Your task to perform on an android device: manage bookmarks in the chrome app Image 0: 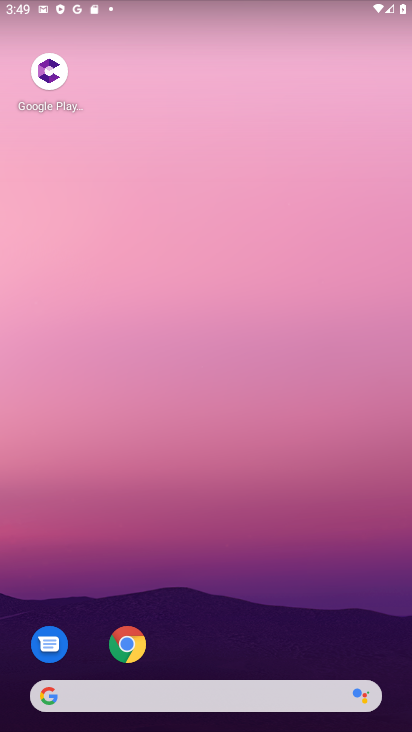
Step 0: drag from (230, 702) to (230, 163)
Your task to perform on an android device: manage bookmarks in the chrome app Image 1: 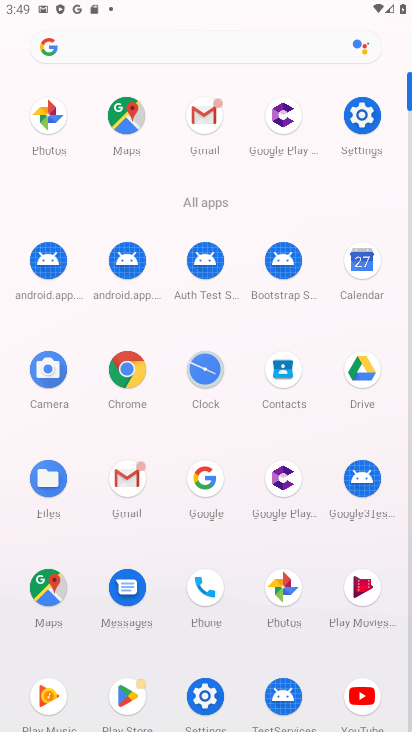
Step 1: click (122, 372)
Your task to perform on an android device: manage bookmarks in the chrome app Image 2: 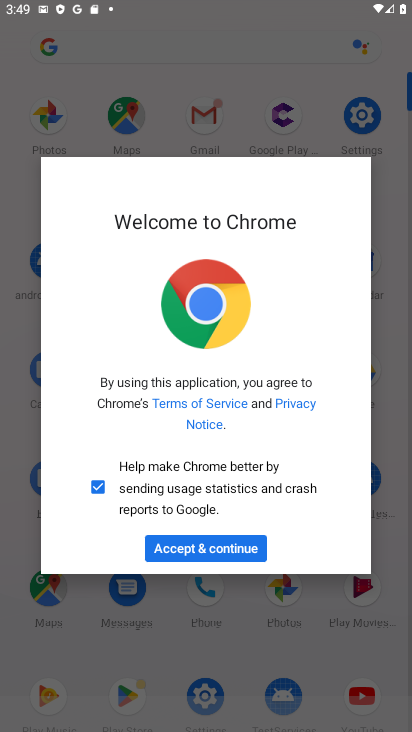
Step 2: click (215, 544)
Your task to perform on an android device: manage bookmarks in the chrome app Image 3: 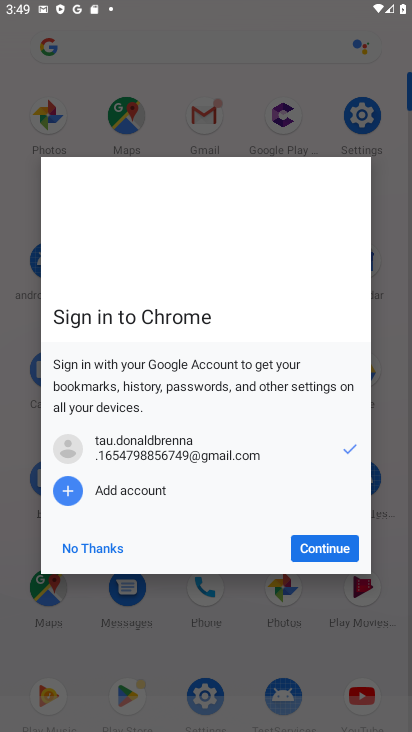
Step 3: click (332, 546)
Your task to perform on an android device: manage bookmarks in the chrome app Image 4: 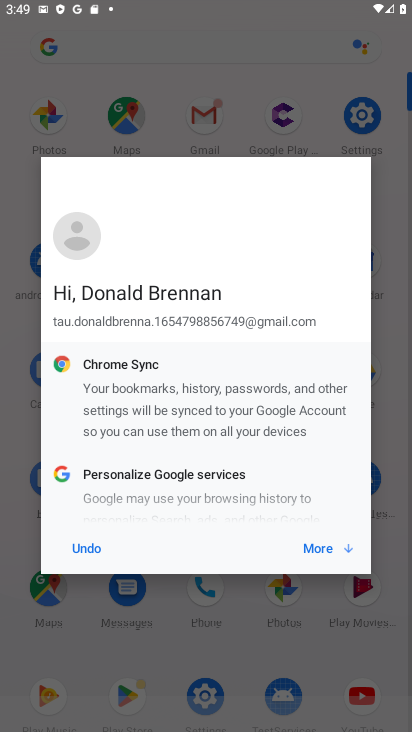
Step 4: click (319, 548)
Your task to perform on an android device: manage bookmarks in the chrome app Image 5: 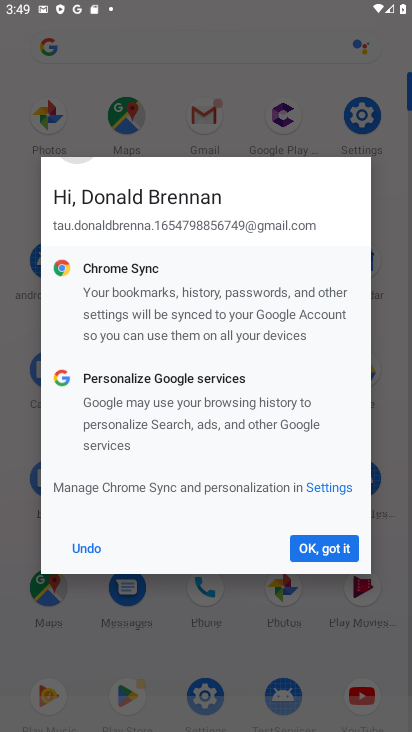
Step 5: click (319, 548)
Your task to perform on an android device: manage bookmarks in the chrome app Image 6: 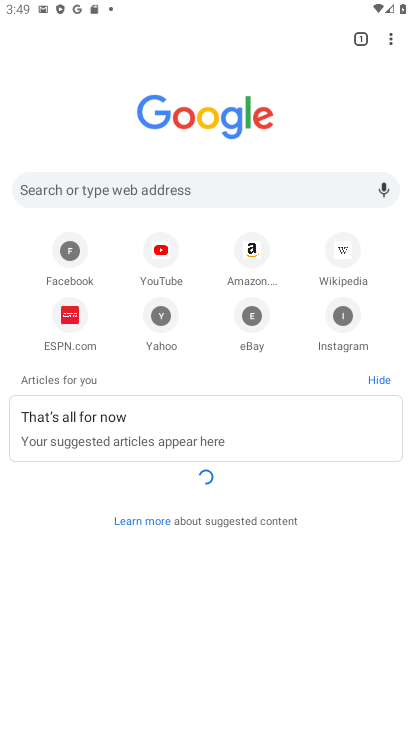
Step 6: click (389, 43)
Your task to perform on an android device: manage bookmarks in the chrome app Image 7: 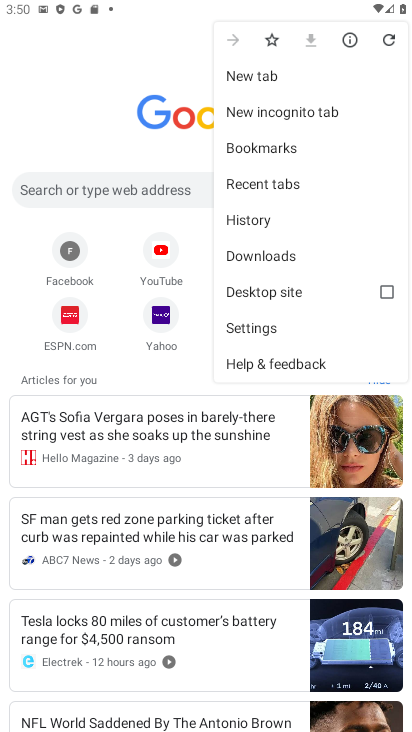
Step 7: click (261, 148)
Your task to perform on an android device: manage bookmarks in the chrome app Image 8: 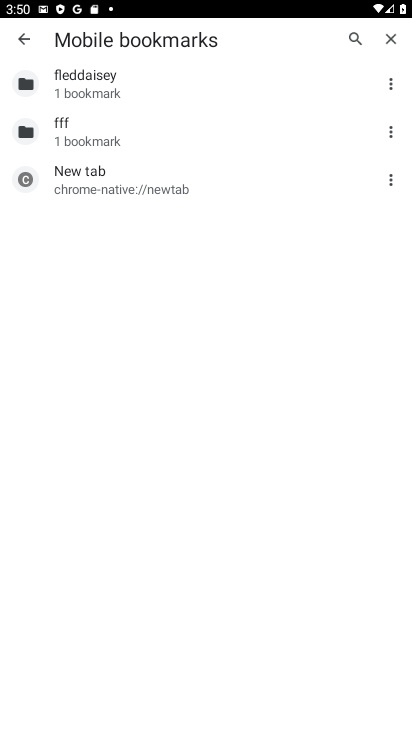
Step 8: click (390, 130)
Your task to perform on an android device: manage bookmarks in the chrome app Image 9: 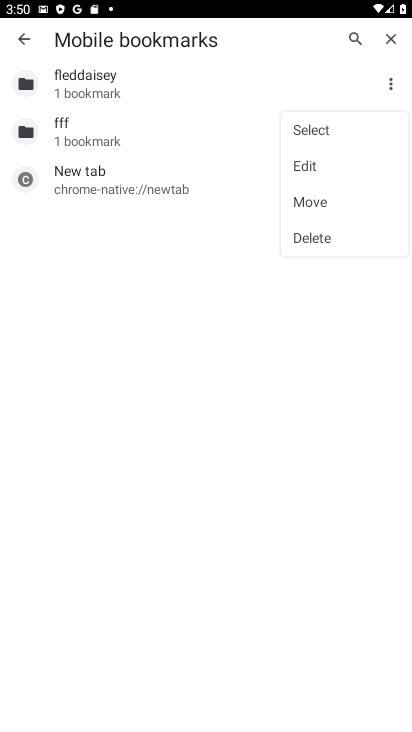
Step 9: click (315, 163)
Your task to perform on an android device: manage bookmarks in the chrome app Image 10: 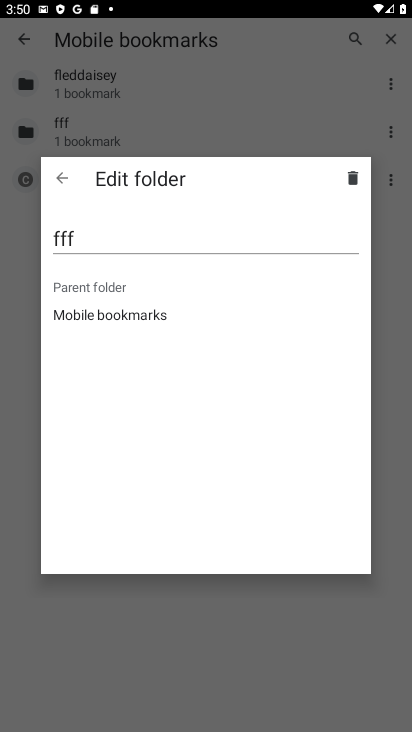
Step 10: click (73, 237)
Your task to perform on an android device: manage bookmarks in the chrome app Image 11: 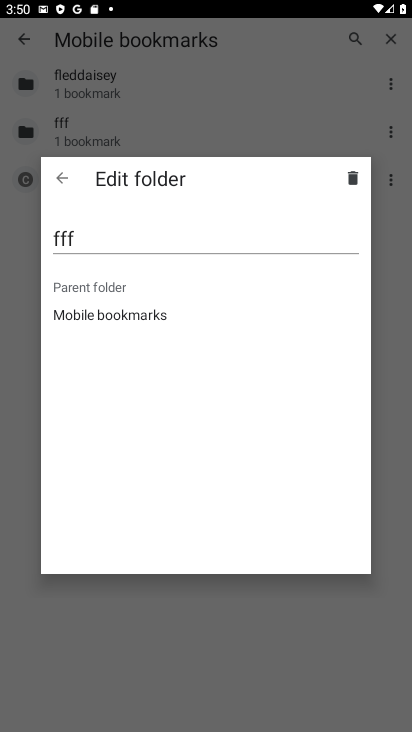
Step 11: click (73, 237)
Your task to perform on an android device: manage bookmarks in the chrome app Image 12: 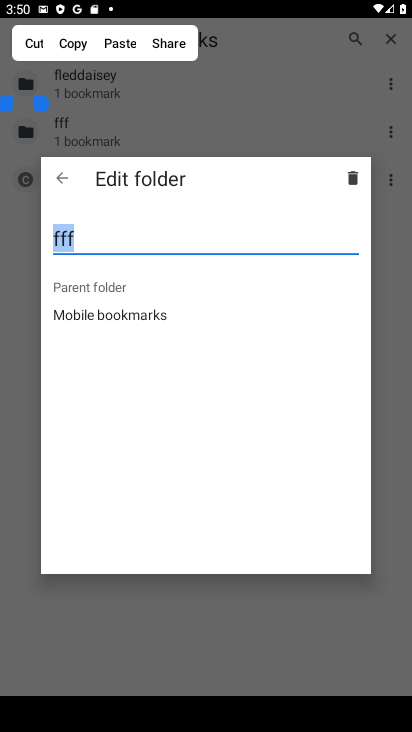
Step 12: click (33, 45)
Your task to perform on an android device: manage bookmarks in the chrome app Image 13: 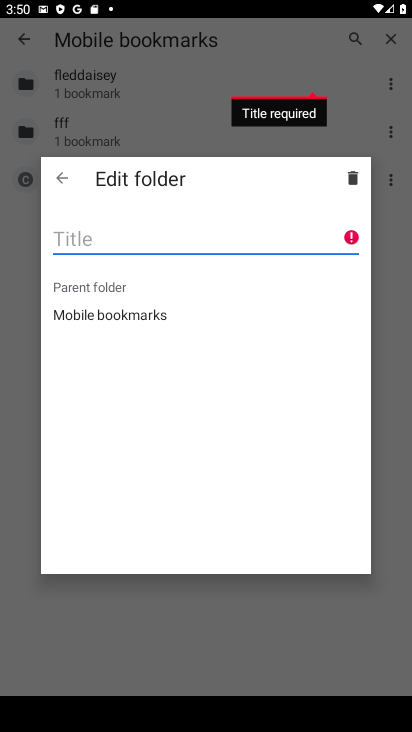
Step 13: type "uyuyuy"
Your task to perform on an android device: manage bookmarks in the chrome app Image 14: 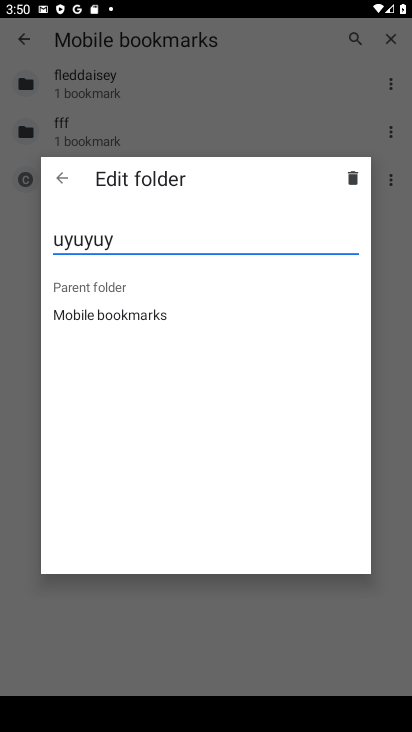
Step 14: click (199, 646)
Your task to perform on an android device: manage bookmarks in the chrome app Image 15: 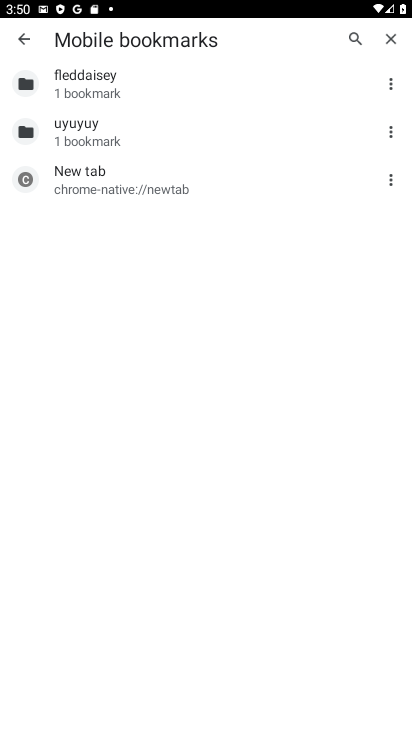
Step 15: click (166, 455)
Your task to perform on an android device: manage bookmarks in the chrome app Image 16: 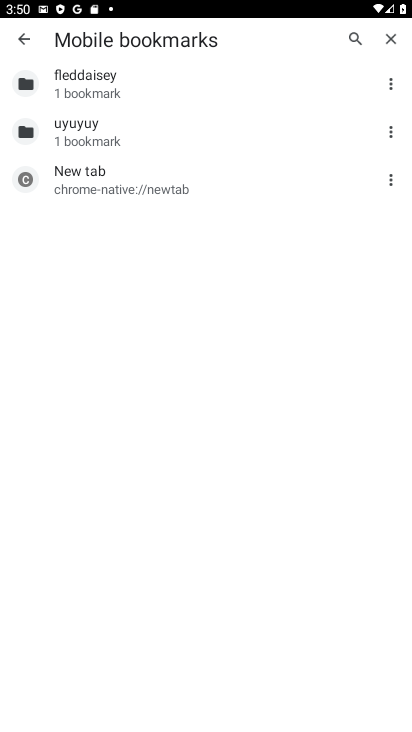
Step 16: task complete